Your task to perform on an android device: Open the camera Image 0: 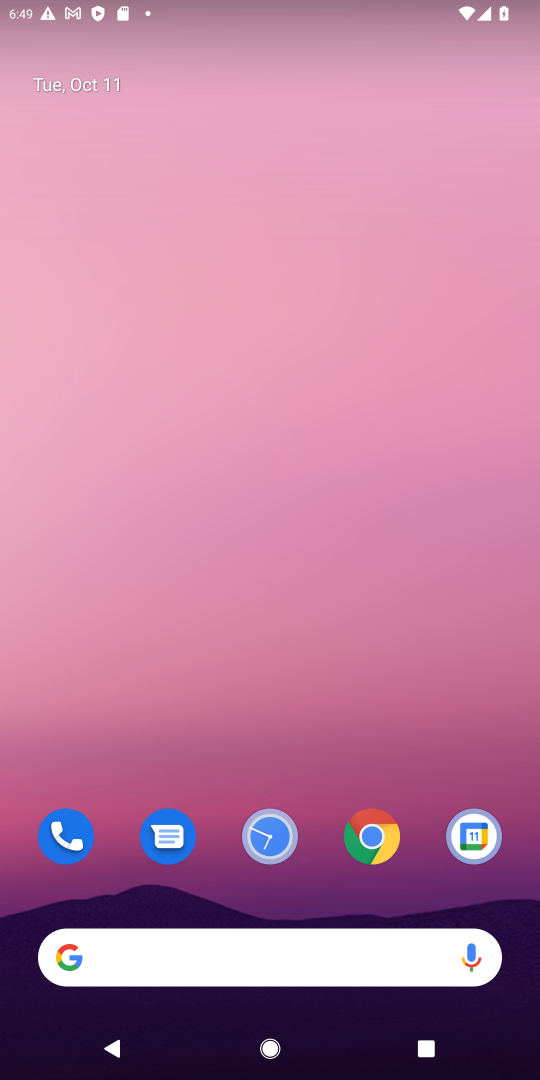
Step 0: drag from (324, 886) to (361, 54)
Your task to perform on an android device: Open the camera Image 1: 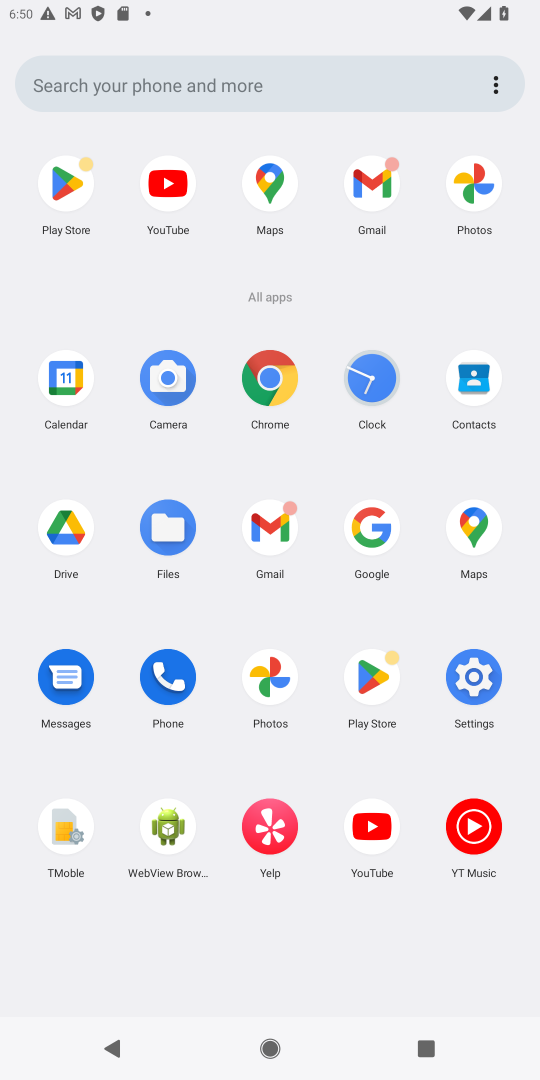
Step 1: click (164, 373)
Your task to perform on an android device: Open the camera Image 2: 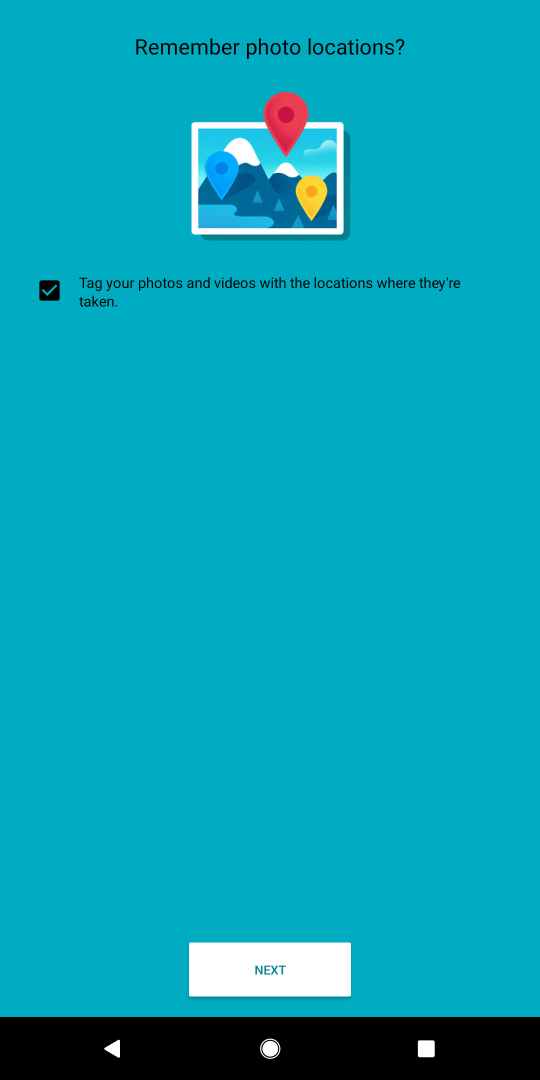
Step 2: click (273, 965)
Your task to perform on an android device: Open the camera Image 3: 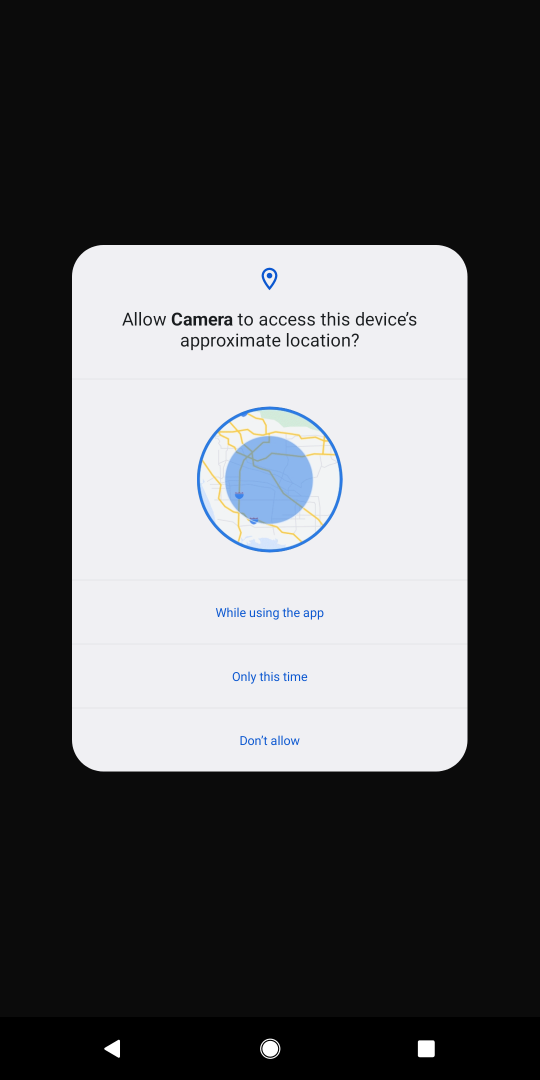
Step 3: click (267, 617)
Your task to perform on an android device: Open the camera Image 4: 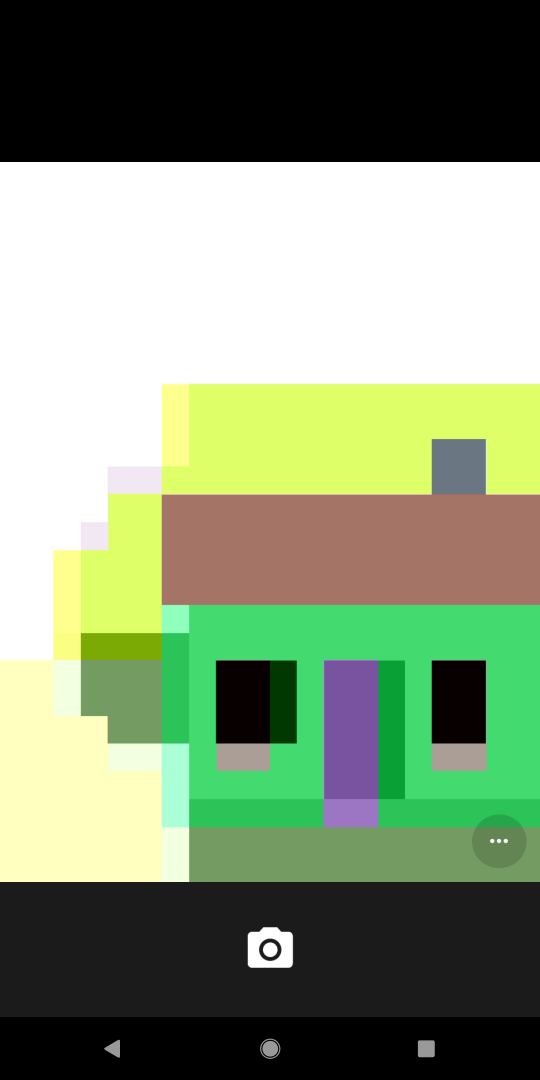
Step 4: task complete